Your task to perform on an android device: add a contact in the contacts app Image 0: 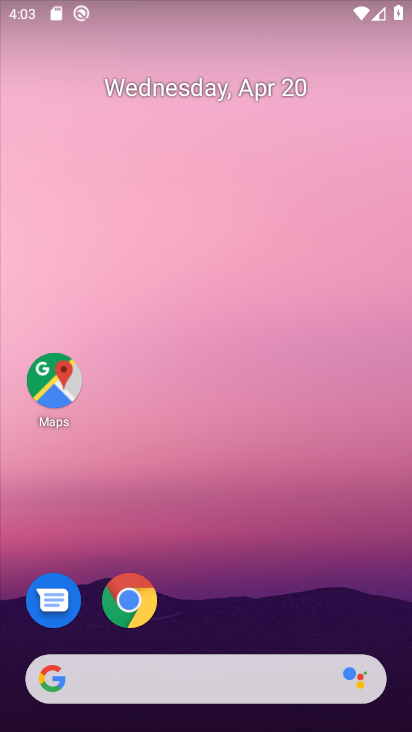
Step 0: drag from (172, 359) to (220, 95)
Your task to perform on an android device: add a contact in the contacts app Image 1: 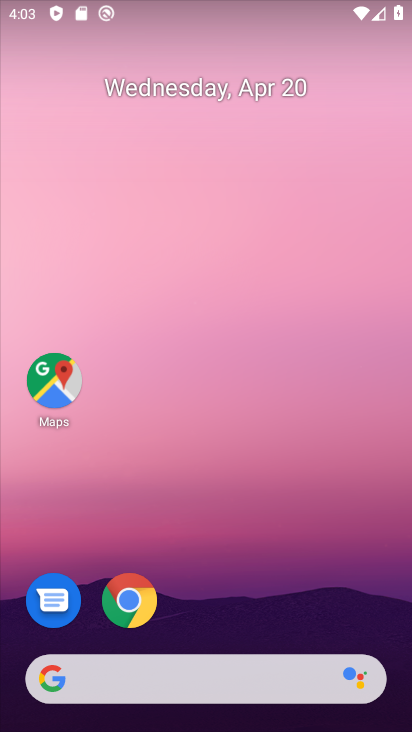
Step 1: drag from (259, 479) to (335, 84)
Your task to perform on an android device: add a contact in the contacts app Image 2: 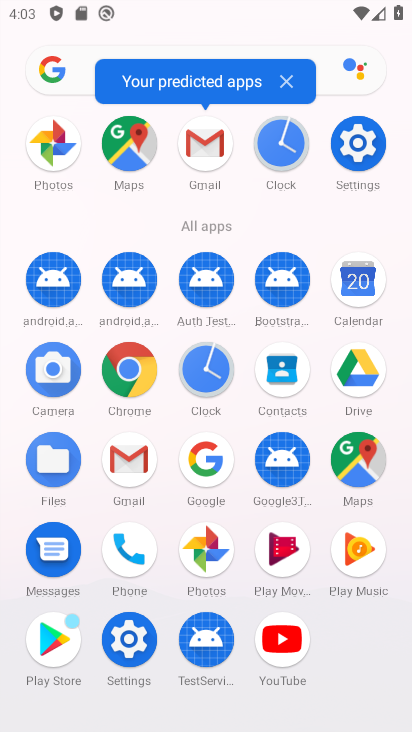
Step 2: click (289, 383)
Your task to perform on an android device: add a contact in the contacts app Image 3: 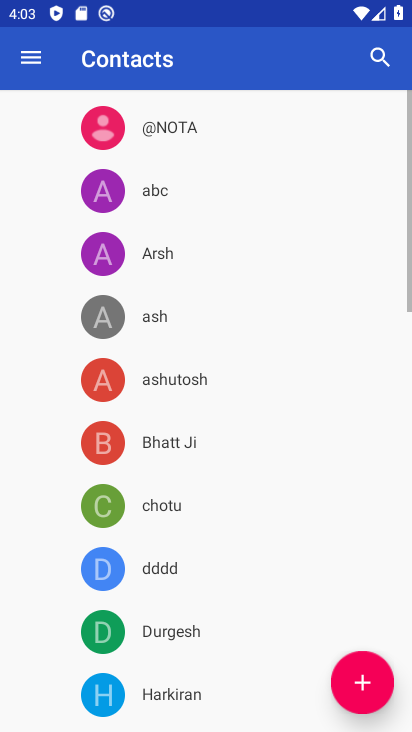
Step 3: click (374, 667)
Your task to perform on an android device: add a contact in the contacts app Image 4: 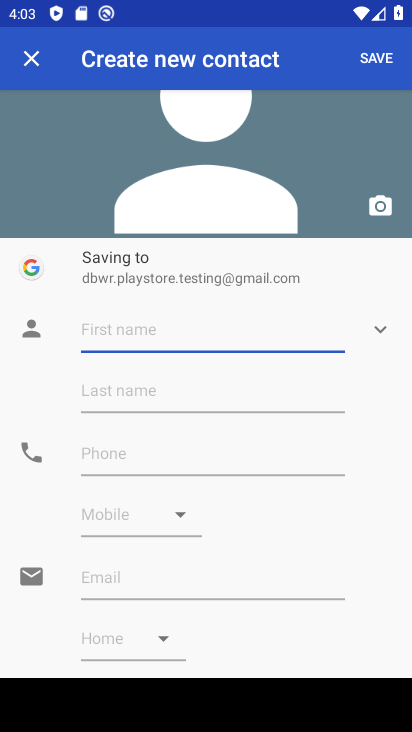
Step 4: type "Ray "
Your task to perform on an android device: add a contact in the contacts app Image 5: 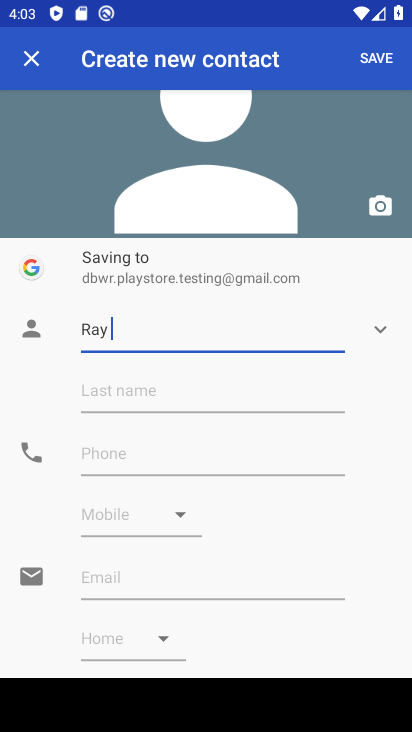
Step 5: click (110, 451)
Your task to perform on an android device: add a contact in the contacts app Image 6: 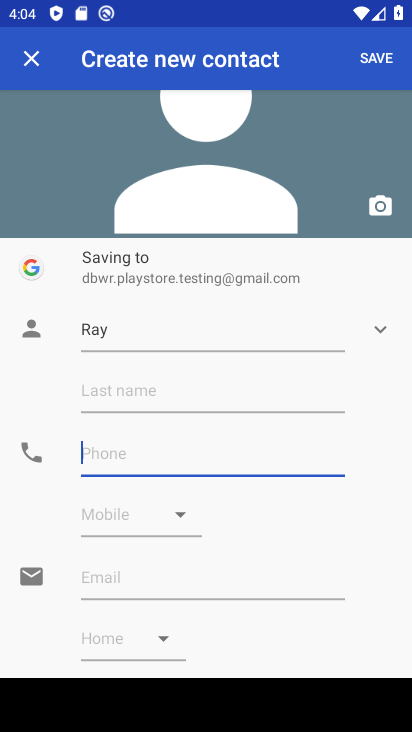
Step 6: type "232121111"
Your task to perform on an android device: add a contact in the contacts app Image 7: 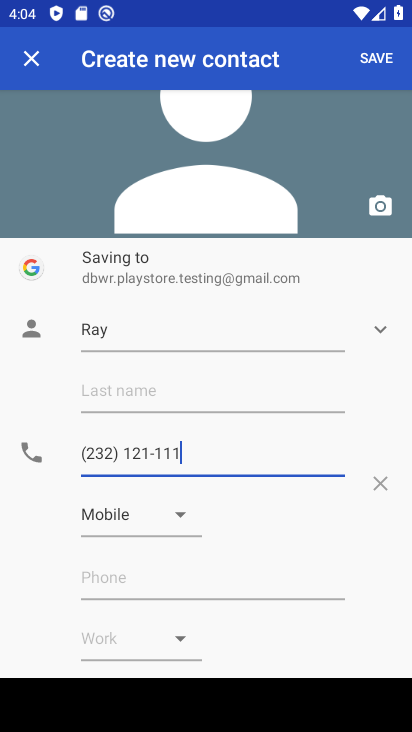
Step 7: click (386, 57)
Your task to perform on an android device: add a contact in the contacts app Image 8: 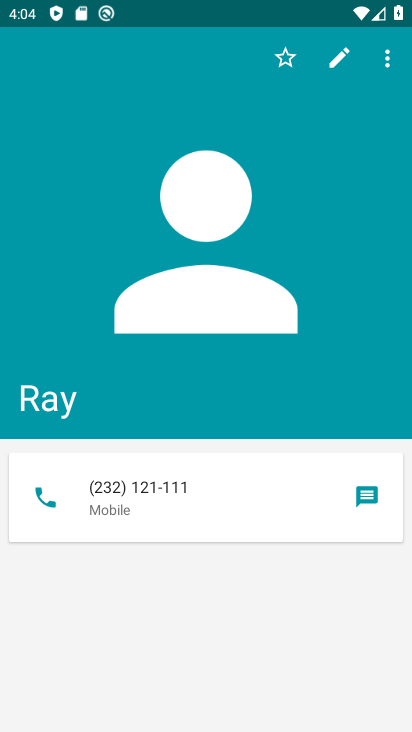
Step 8: task complete